Your task to perform on an android device: Open calendar and show me the third week of next month Image 0: 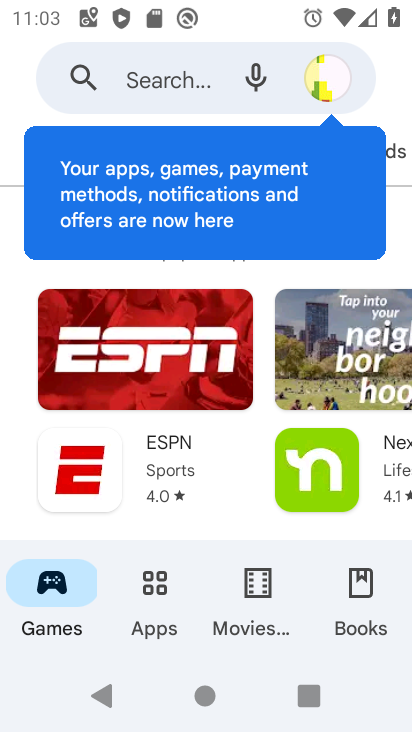
Step 0: press home button
Your task to perform on an android device: Open calendar and show me the third week of next month Image 1: 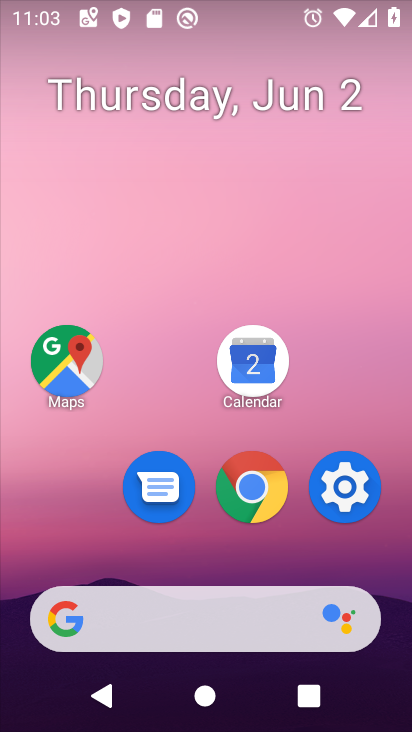
Step 1: press home button
Your task to perform on an android device: Open calendar and show me the third week of next month Image 2: 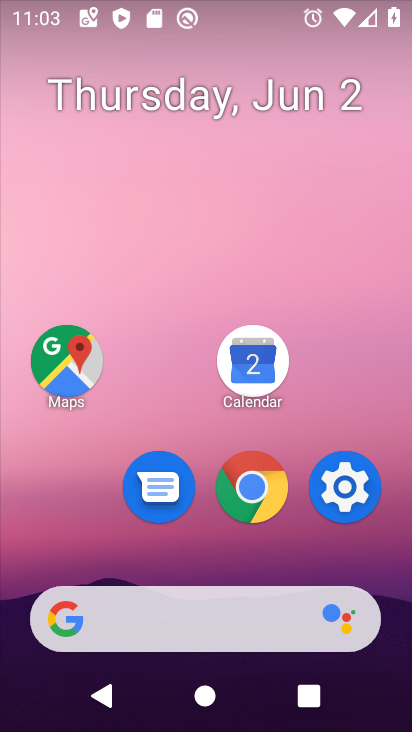
Step 2: click (282, 411)
Your task to perform on an android device: Open calendar and show me the third week of next month Image 3: 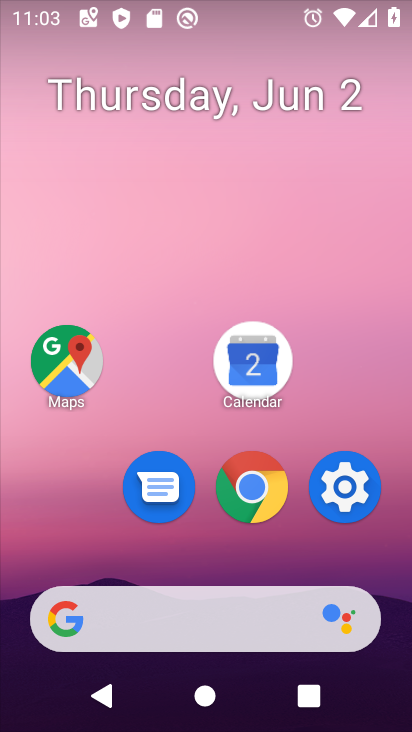
Step 3: click (273, 395)
Your task to perform on an android device: Open calendar and show me the third week of next month Image 4: 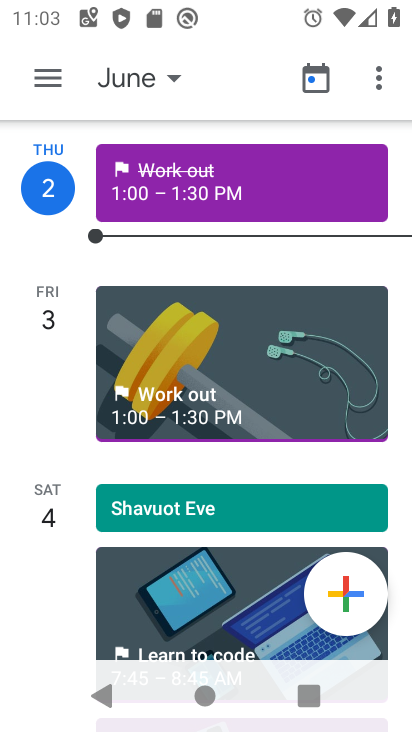
Step 4: click (39, 77)
Your task to perform on an android device: Open calendar and show me the third week of next month Image 5: 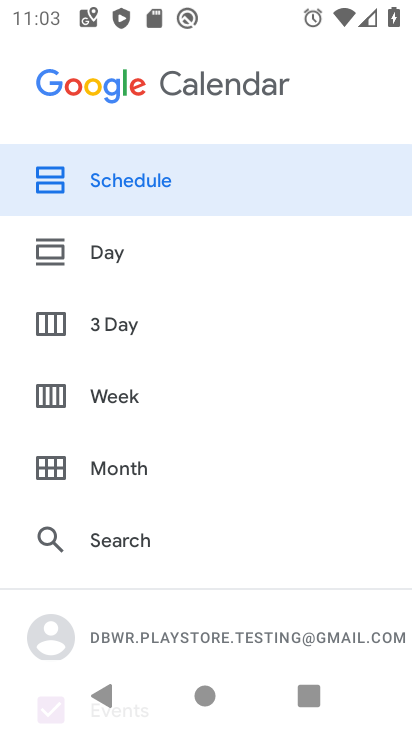
Step 5: click (161, 475)
Your task to perform on an android device: Open calendar and show me the third week of next month Image 6: 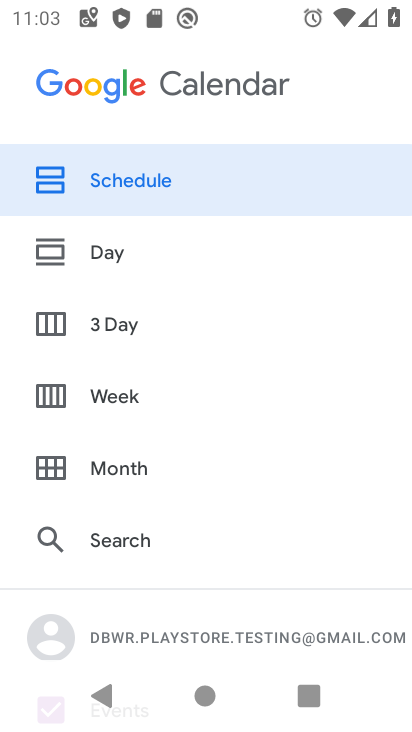
Step 6: click (136, 471)
Your task to perform on an android device: Open calendar and show me the third week of next month Image 7: 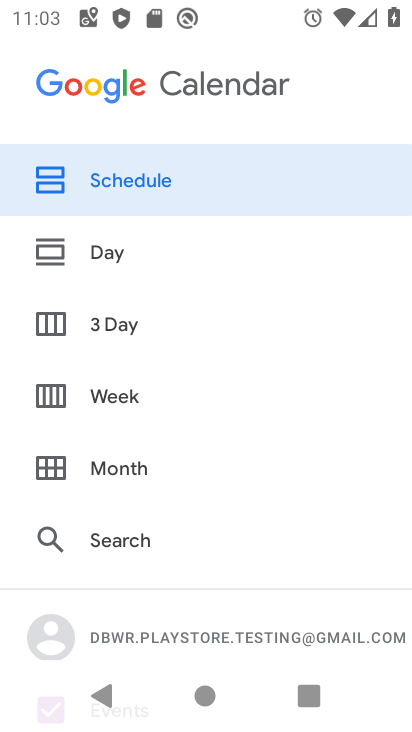
Step 7: click (133, 471)
Your task to perform on an android device: Open calendar and show me the third week of next month Image 8: 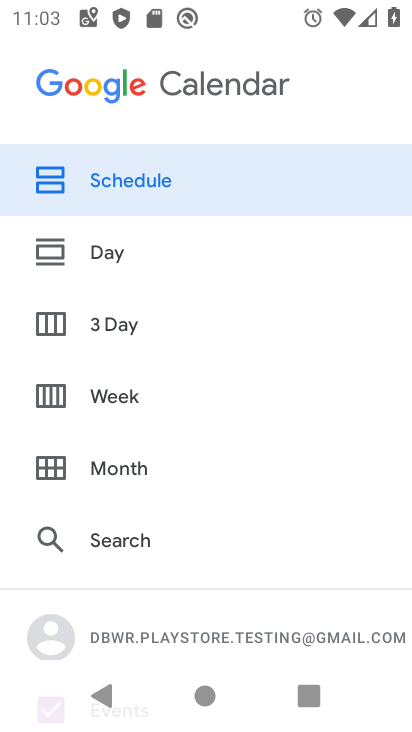
Step 8: click (135, 470)
Your task to perform on an android device: Open calendar and show me the third week of next month Image 9: 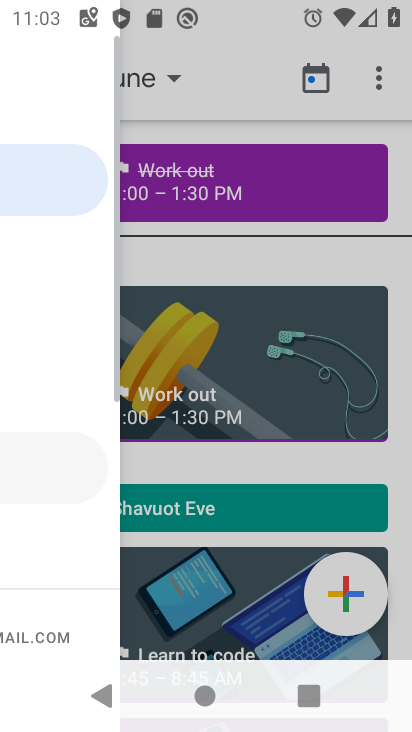
Step 9: click (135, 470)
Your task to perform on an android device: Open calendar and show me the third week of next month Image 10: 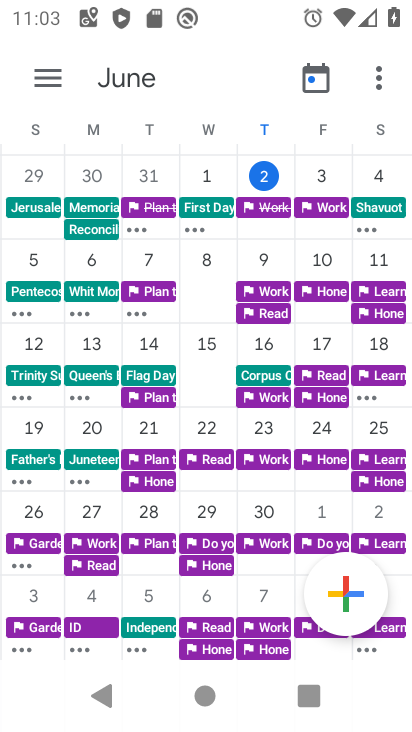
Step 10: drag from (311, 452) to (8, 338)
Your task to perform on an android device: Open calendar and show me the third week of next month Image 11: 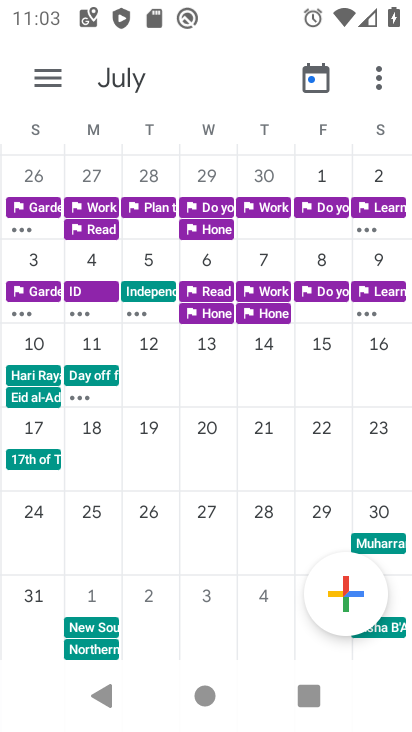
Step 11: click (32, 259)
Your task to perform on an android device: Open calendar and show me the third week of next month Image 12: 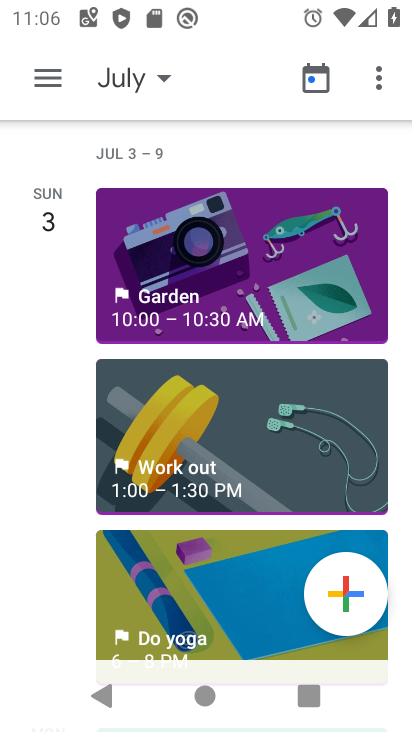
Step 12: task complete